Your task to perform on an android device: Go to accessibility settings Image 0: 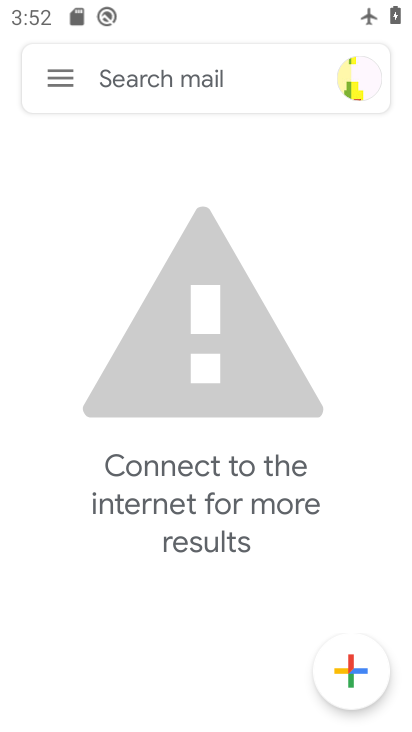
Step 0: click (73, 87)
Your task to perform on an android device: Go to accessibility settings Image 1: 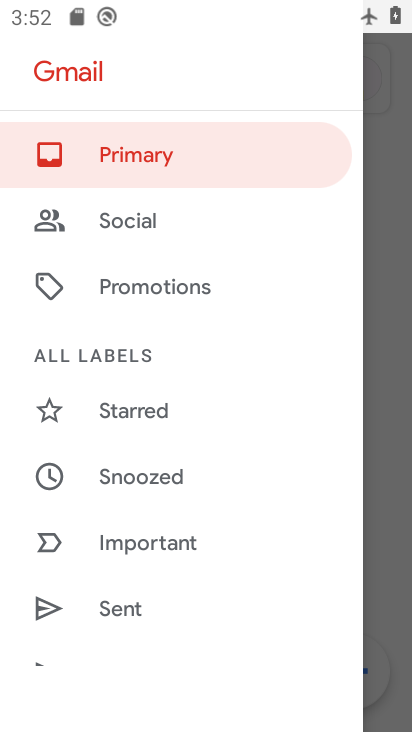
Step 1: drag from (161, 544) to (159, 144)
Your task to perform on an android device: Go to accessibility settings Image 2: 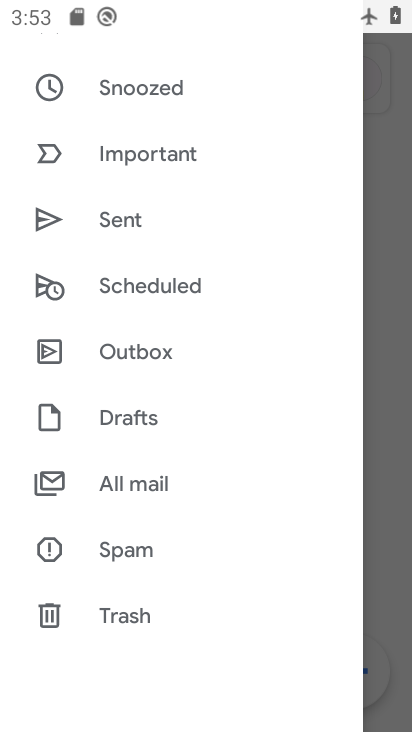
Step 2: press home button
Your task to perform on an android device: Go to accessibility settings Image 3: 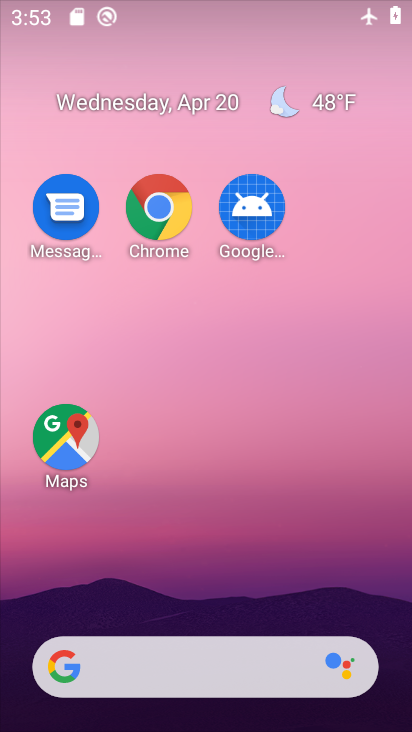
Step 3: drag from (260, 607) to (256, 54)
Your task to perform on an android device: Go to accessibility settings Image 4: 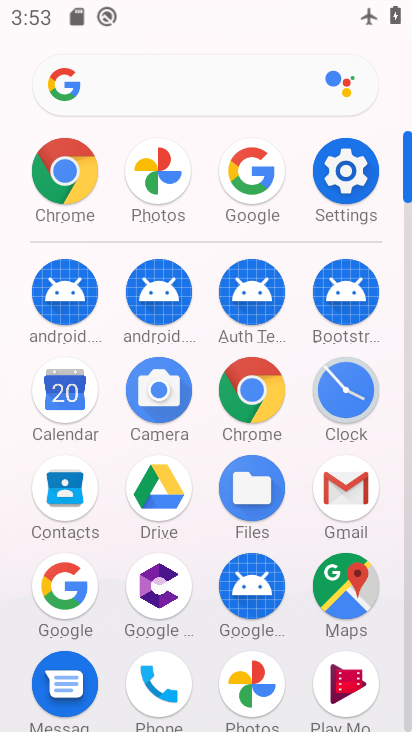
Step 4: click (358, 157)
Your task to perform on an android device: Go to accessibility settings Image 5: 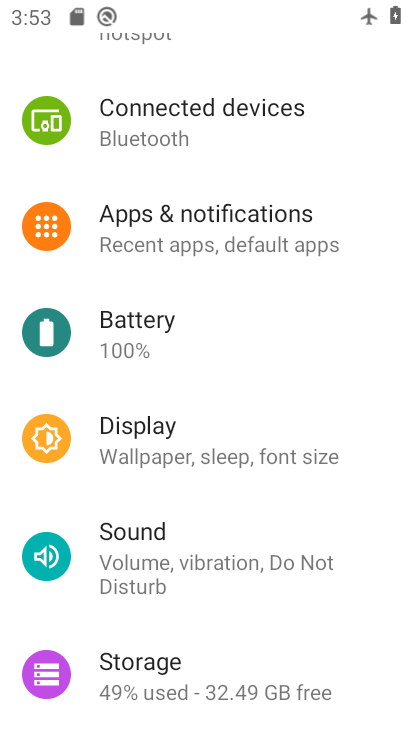
Step 5: drag from (220, 546) to (317, 81)
Your task to perform on an android device: Go to accessibility settings Image 6: 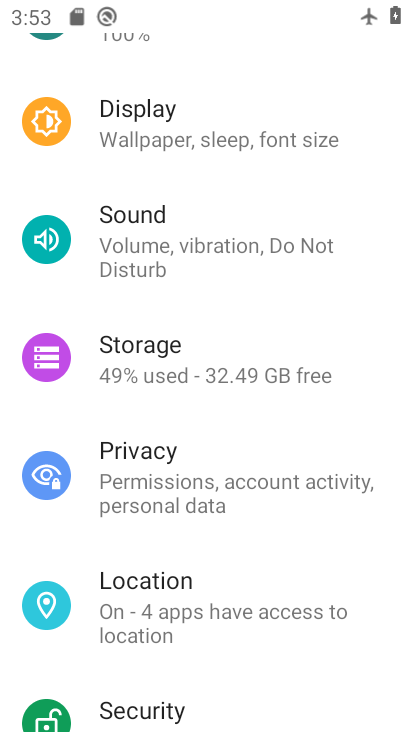
Step 6: drag from (213, 377) to (238, 127)
Your task to perform on an android device: Go to accessibility settings Image 7: 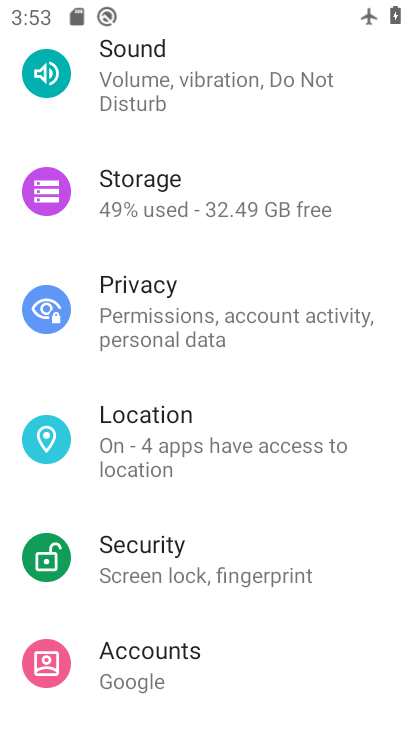
Step 7: drag from (221, 510) to (285, 129)
Your task to perform on an android device: Go to accessibility settings Image 8: 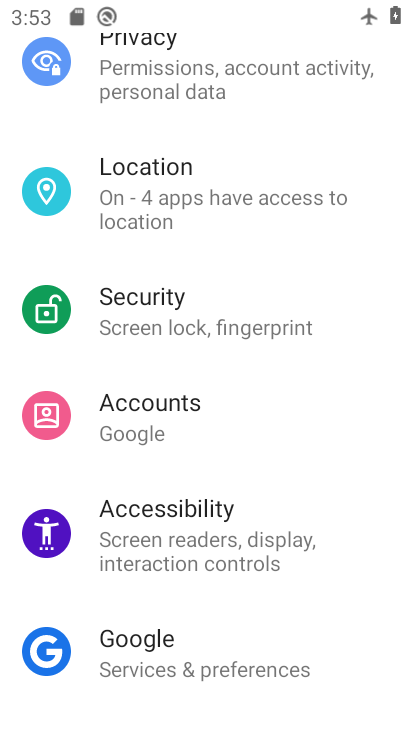
Step 8: click (219, 524)
Your task to perform on an android device: Go to accessibility settings Image 9: 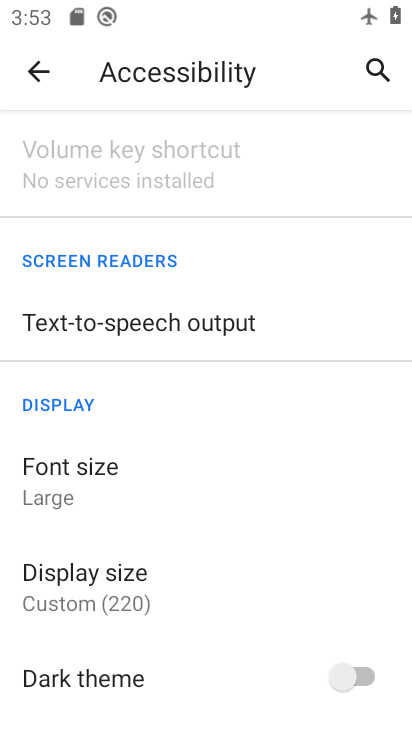
Step 9: task complete